Your task to perform on an android device: Toggle the flashlight Image 0: 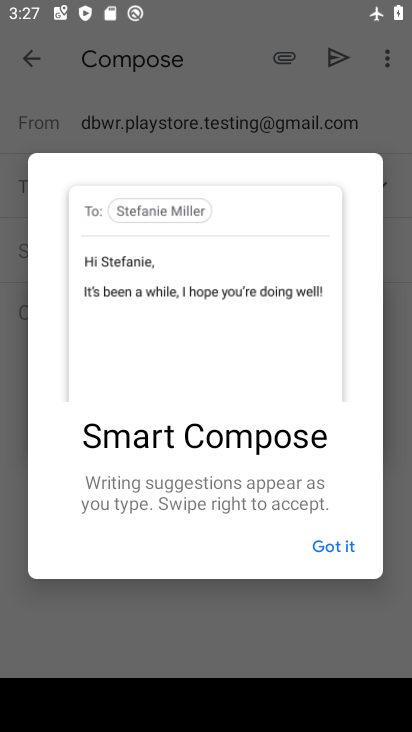
Step 0: press home button
Your task to perform on an android device: Toggle the flashlight Image 1: 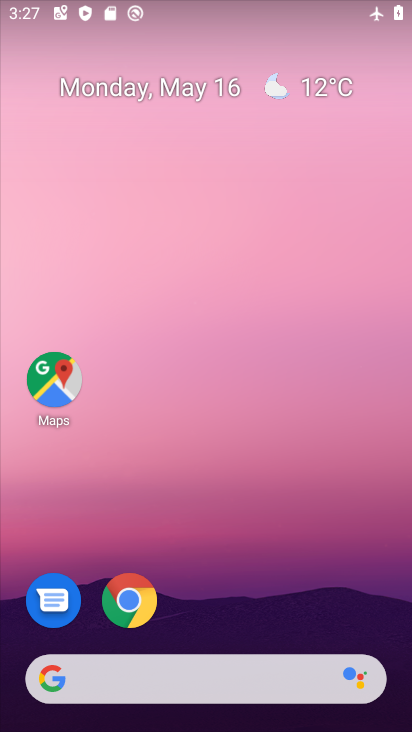
Step 1: drag from (194, 681) to (125, 3)
Your task to perform on an android device: Toggle the flashlight Image 2: 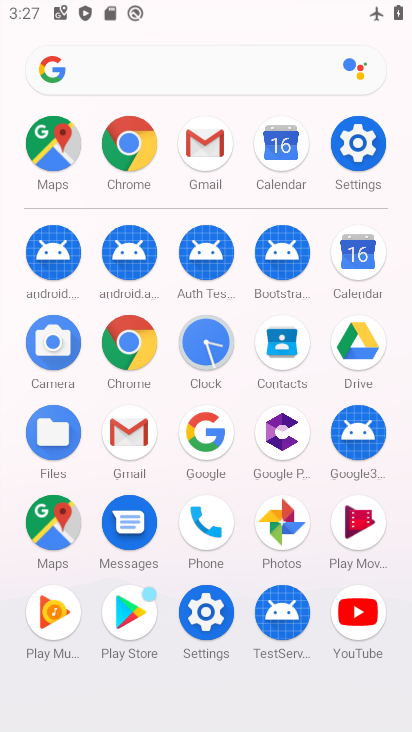
Step 2: click (363, 153)
Your task to perform on an android device: Toggle the flashlight Image 3: 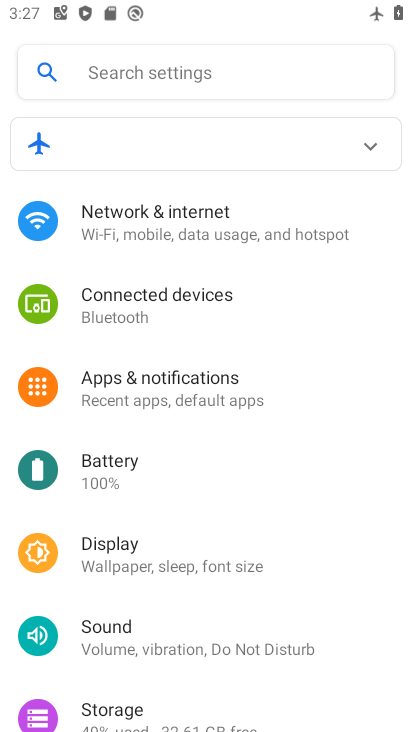
Step 3: task complete